Your task to perform on an android device: open the mobile data screen to see how much data has been used Image 0: 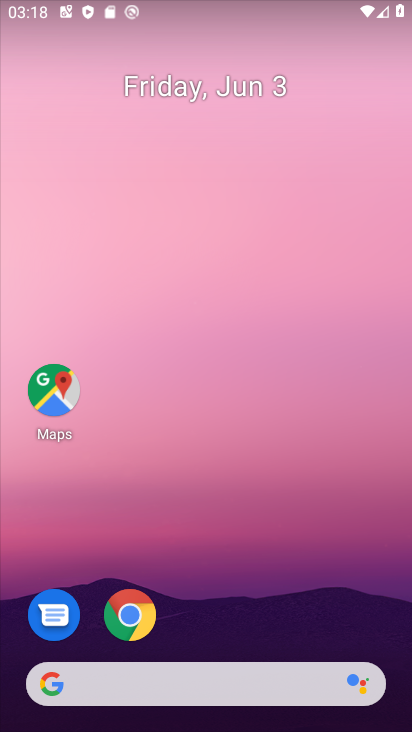
Step 0: drag from (242, 630) to (189, 239)
Your task to perform on an android device: open the mobile data screen to see how much data has been used Image 1: 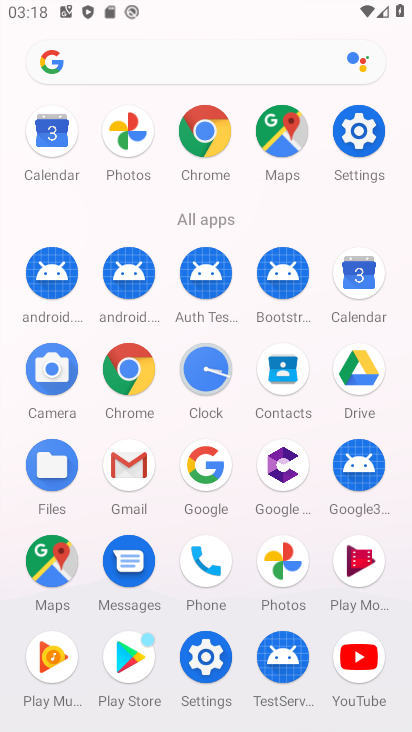
Step 1: click (364, 141)
Your task to perform on an android device: open the mobile data screen to see how much data has been used Image 2: 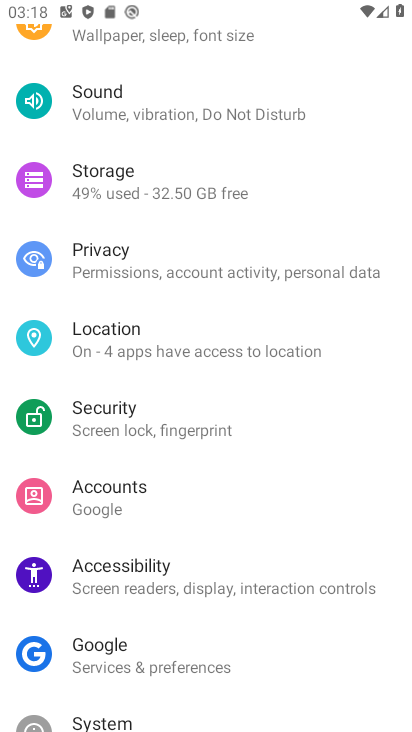
Step 2: drag from (178, 173) to (194, 408)
Your task to perform on an android device: open the mobile data screen to see how much data has been used Image 3: 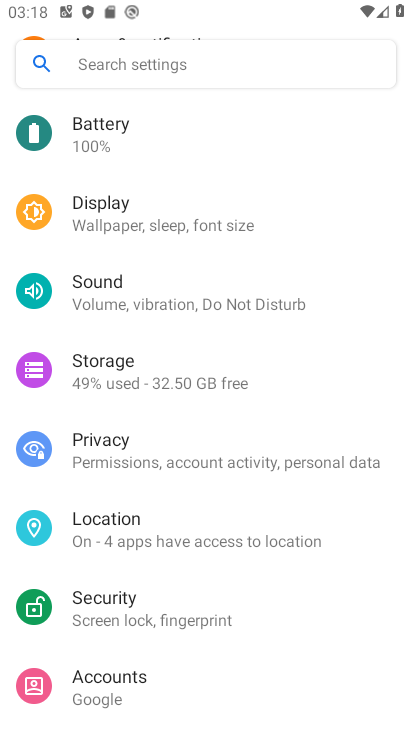
Step 3: drag from (199, 356) to (277, 708)
Your task to perform on an android device: open the mobile data screen to see how much data has been used Image 4: 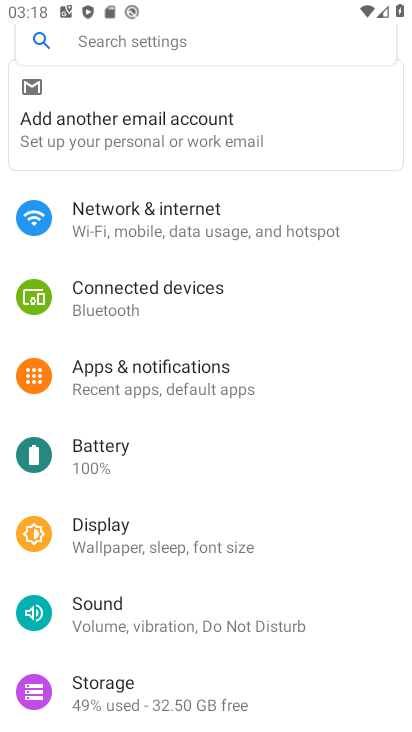
Step 4: click (217, 232)
Your task to perform on an android device: open the mobile data screen to see how much data has been used Image 5: 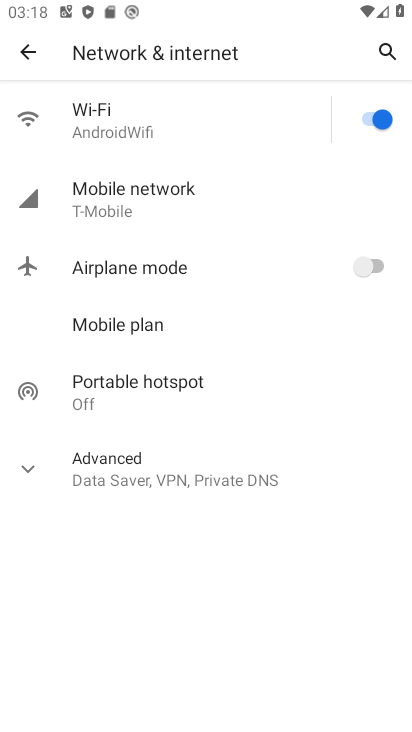
Step 5: click (195, 196)
Your task to perform on an android device: open the mobile data screen to see how much data has been used Image 6: 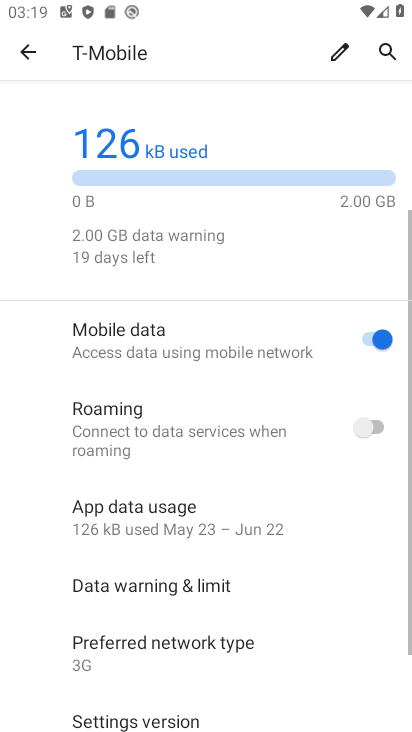
Step 6: task complete